Your task to perform on an android device: Add jbl charge 4 to the cart on bestbuy, then select checkout. Image 0: 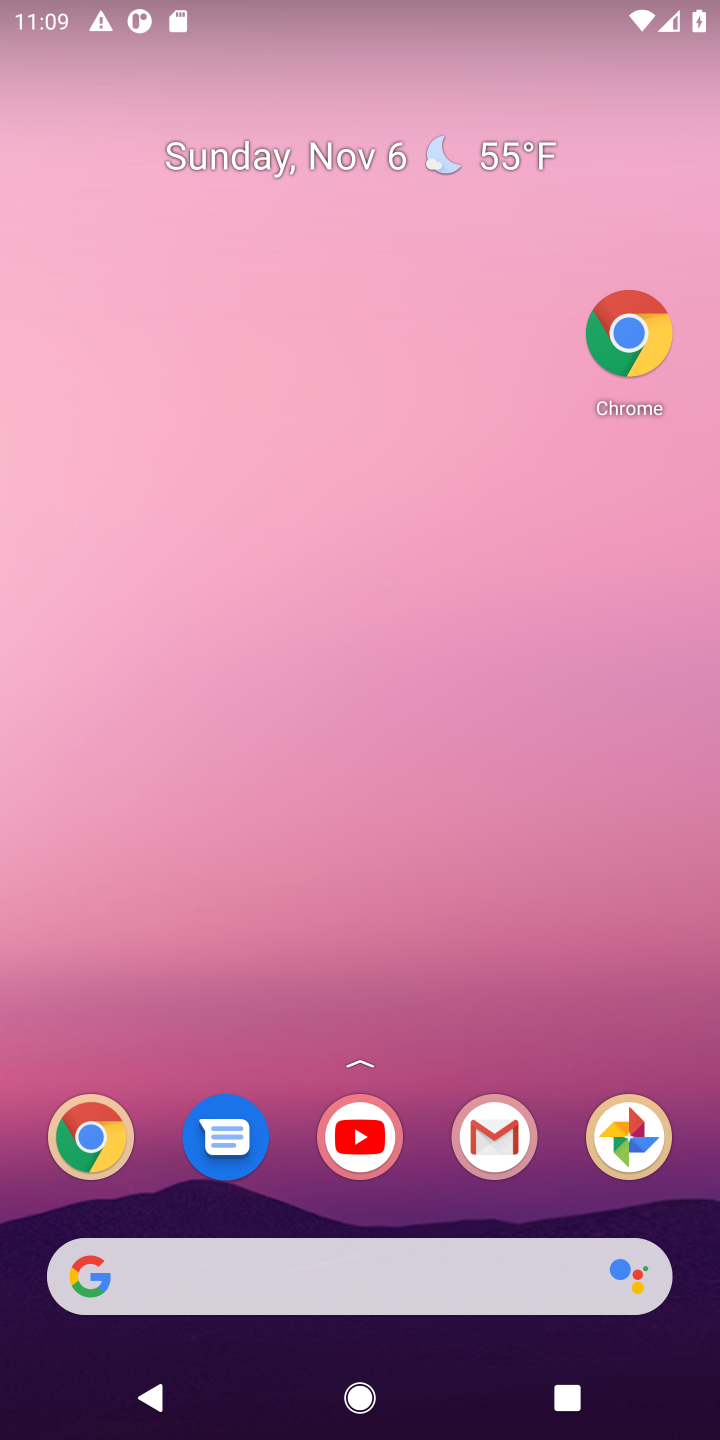
Step 0: drag from (420, 1156) to (433, 289)
Your task to perform on an android device: Add jbl charge 4 to the cart on bestbuy, then select checkout. Image 1: 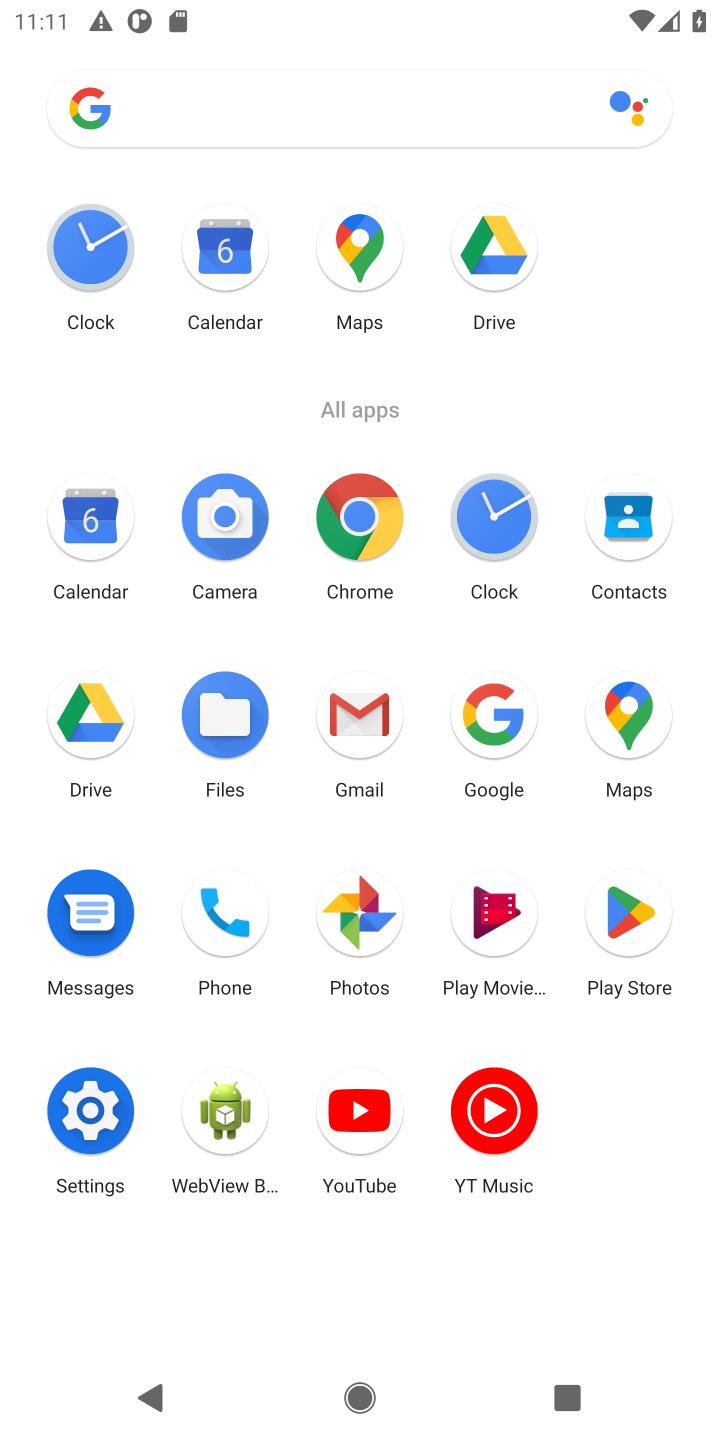
Step 1: click (363, 515)
Your task to perform on an android device: Add jbl charge 4 to the cart on bestbuy, then select checkout. Image 2: 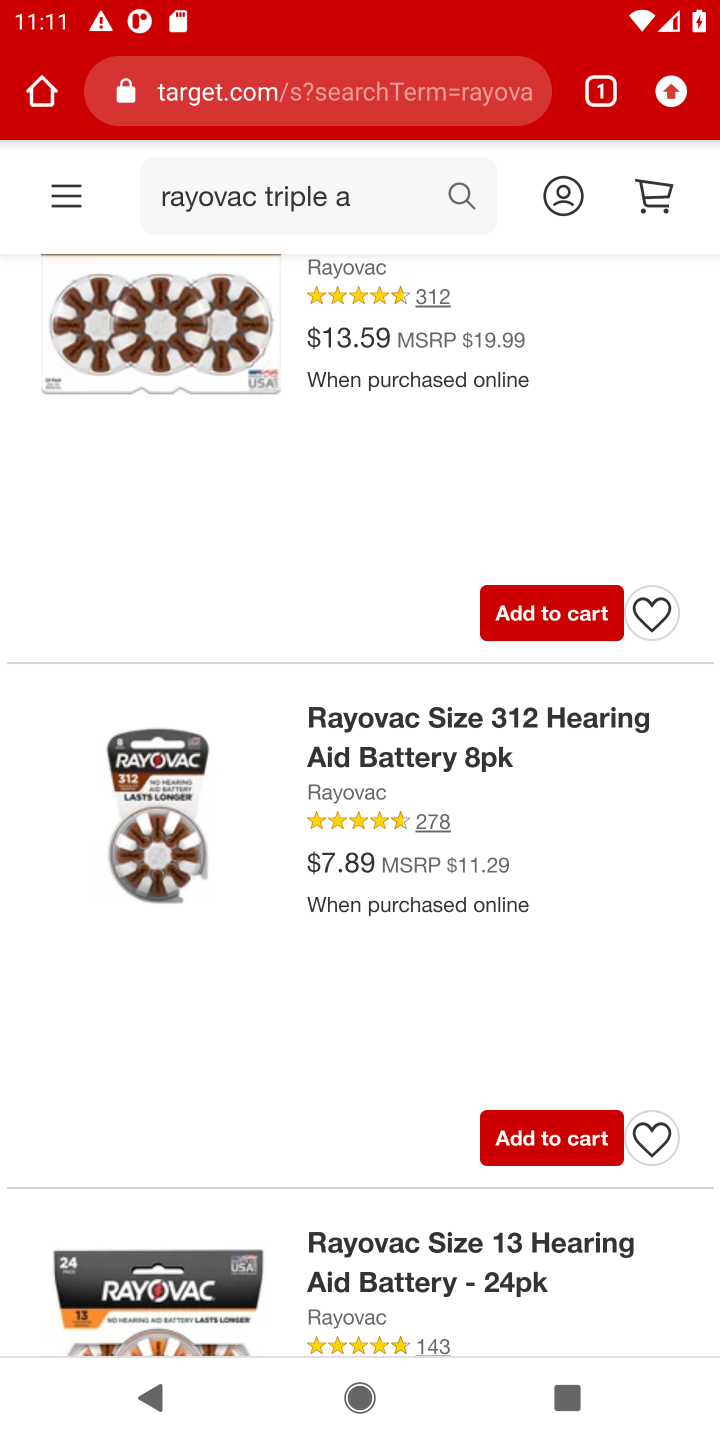
Step 2: click (408, 447)
Your task to perform on an android device: Add jbl charge 4 to the cart on bestbuy, then select checkout. Image 3: 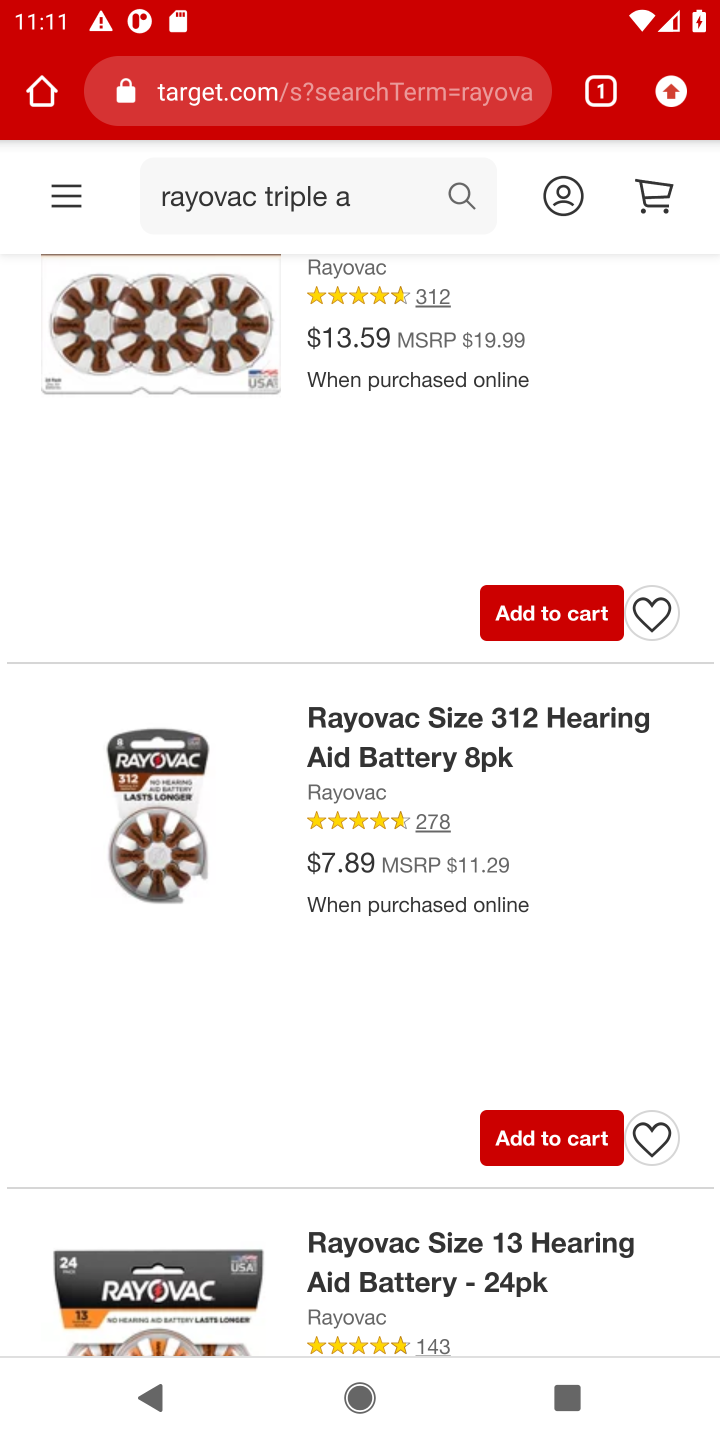
Step 3: click (516, 116)
Your task to perform on an android device: Add jbl charge 4 to the cart on bestbuy, then select checkout. Image 4: 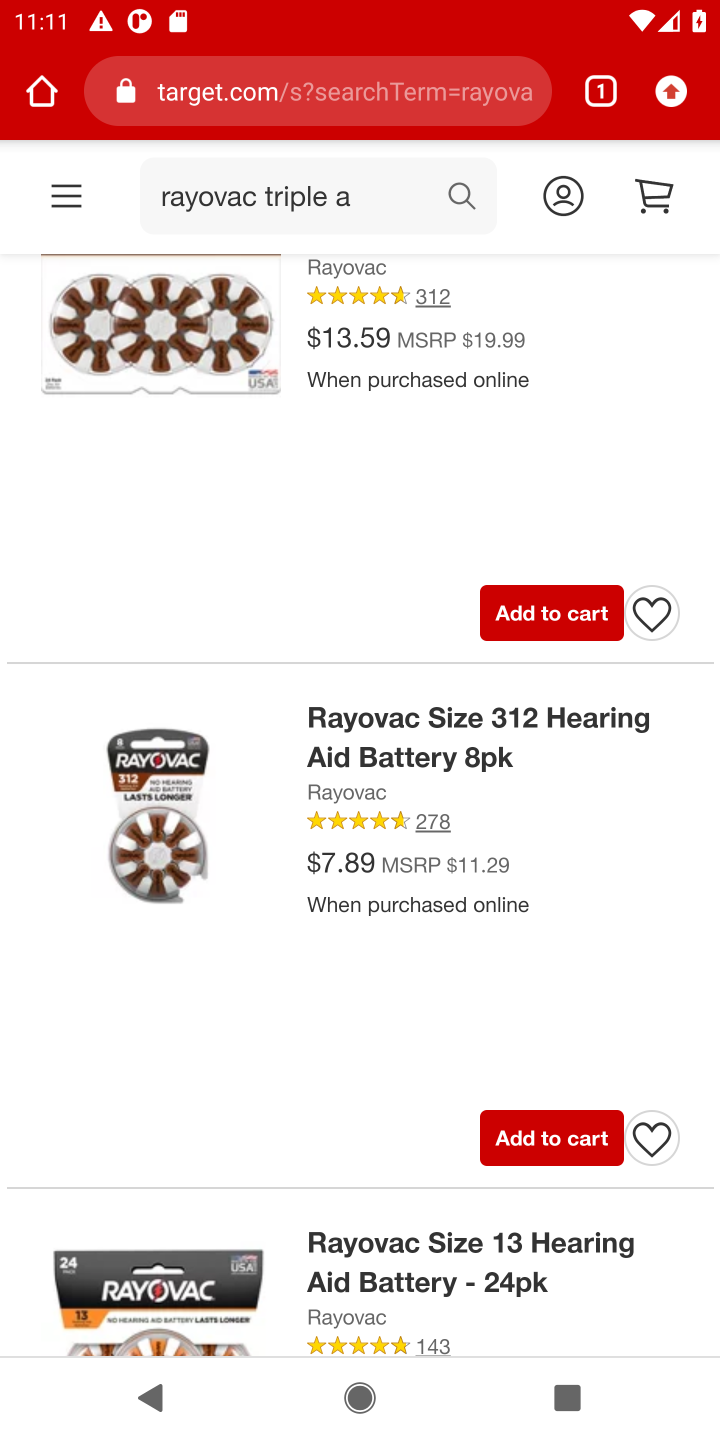
Step 4: click (420, 87)
Your task to perform on an android device: Add jbl charge 4 to the cart on bestbuy, then select checkout. Image 5: 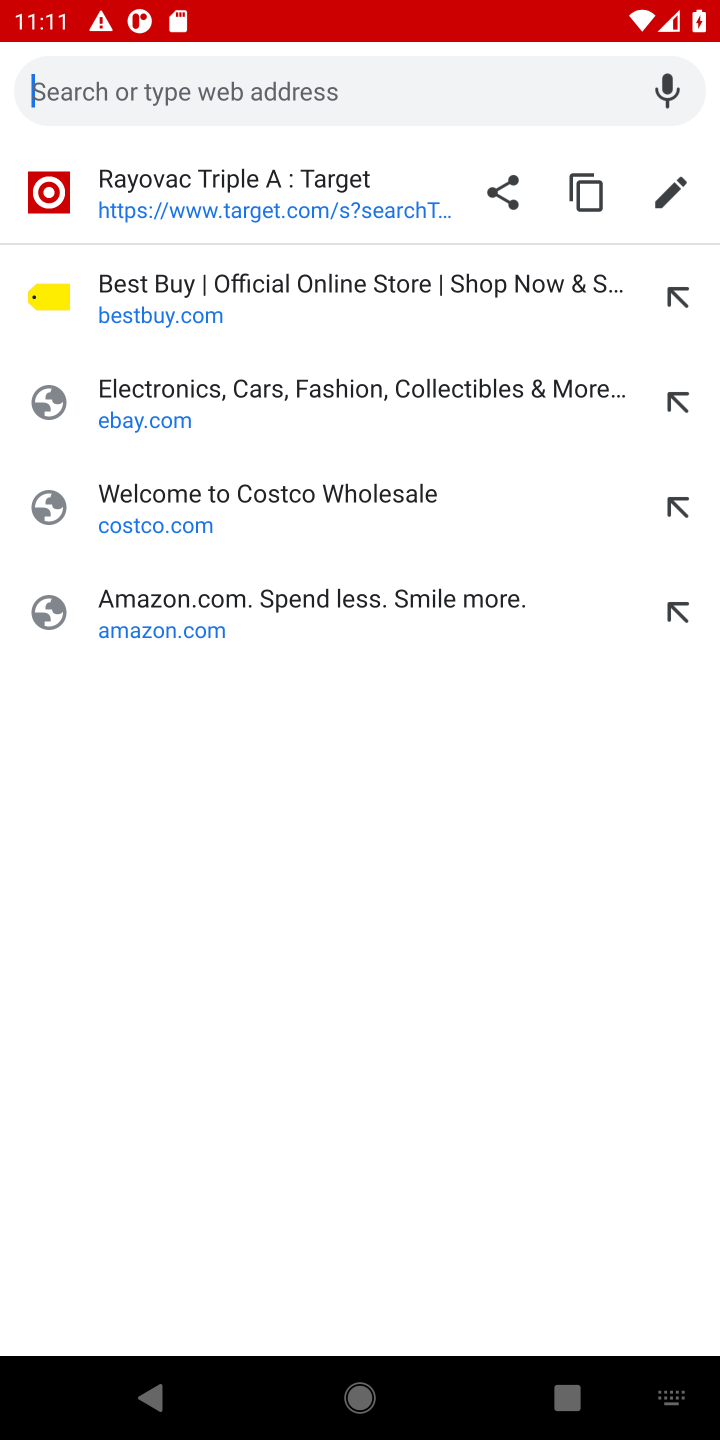
Step 5: type "bestbuy.com"
Your task to perform on an android device: Add jbl charge 4 to the cart on bestbuy, then select checkout. Image 6: 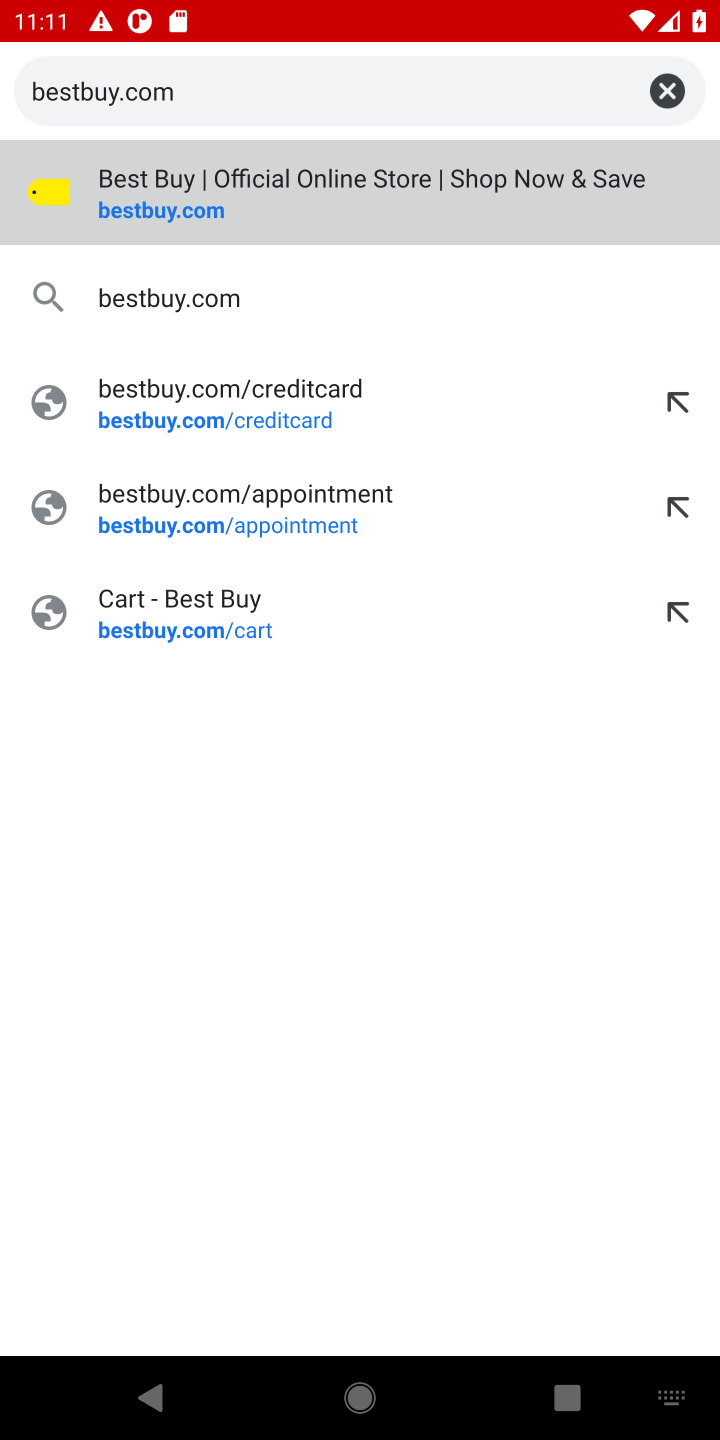
Step 6: press enter
Your task to perform on an android device: Add jbl charge 4 to the cart on bestbuy, then select checkout. Image 7: 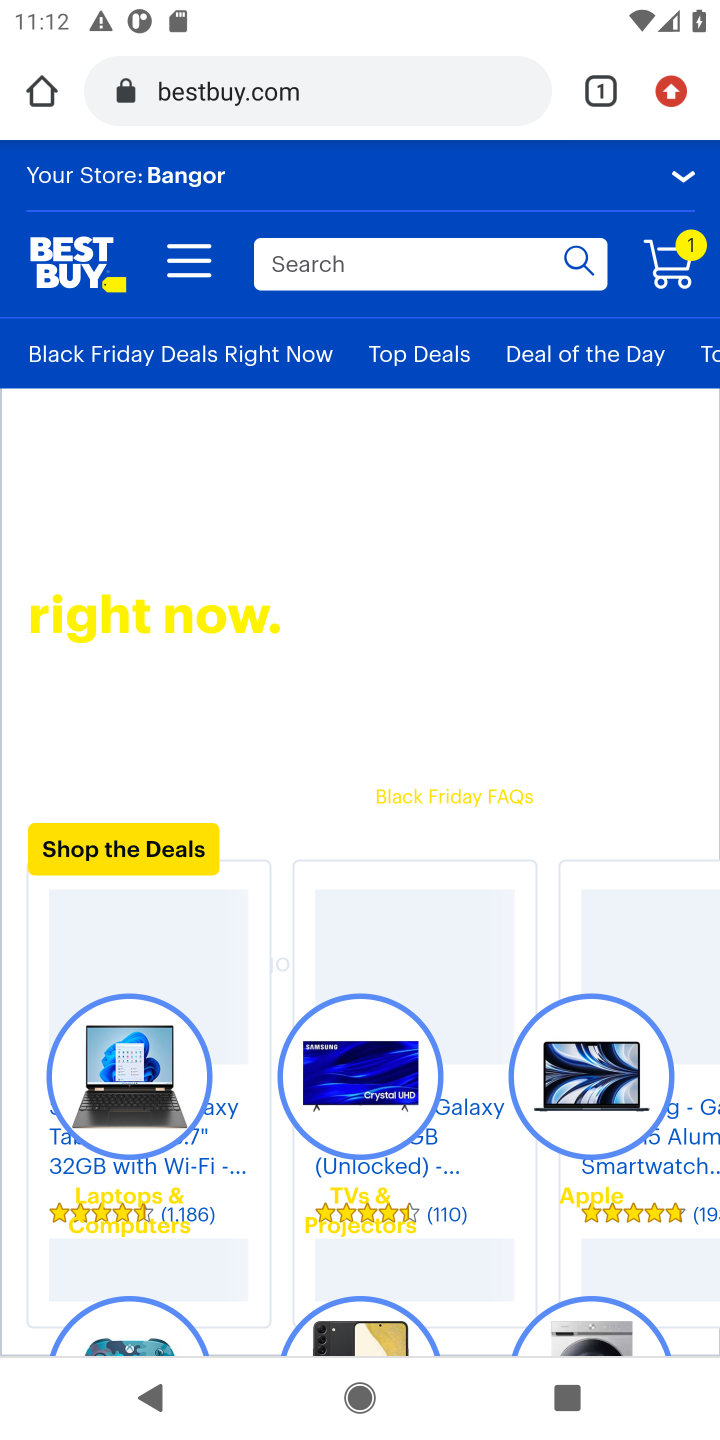
Step 7: click (480, 264)
Your task to perform on an android device: Add jbl charge 4 to the cart on bestbuy, then select checkout. Image 8: 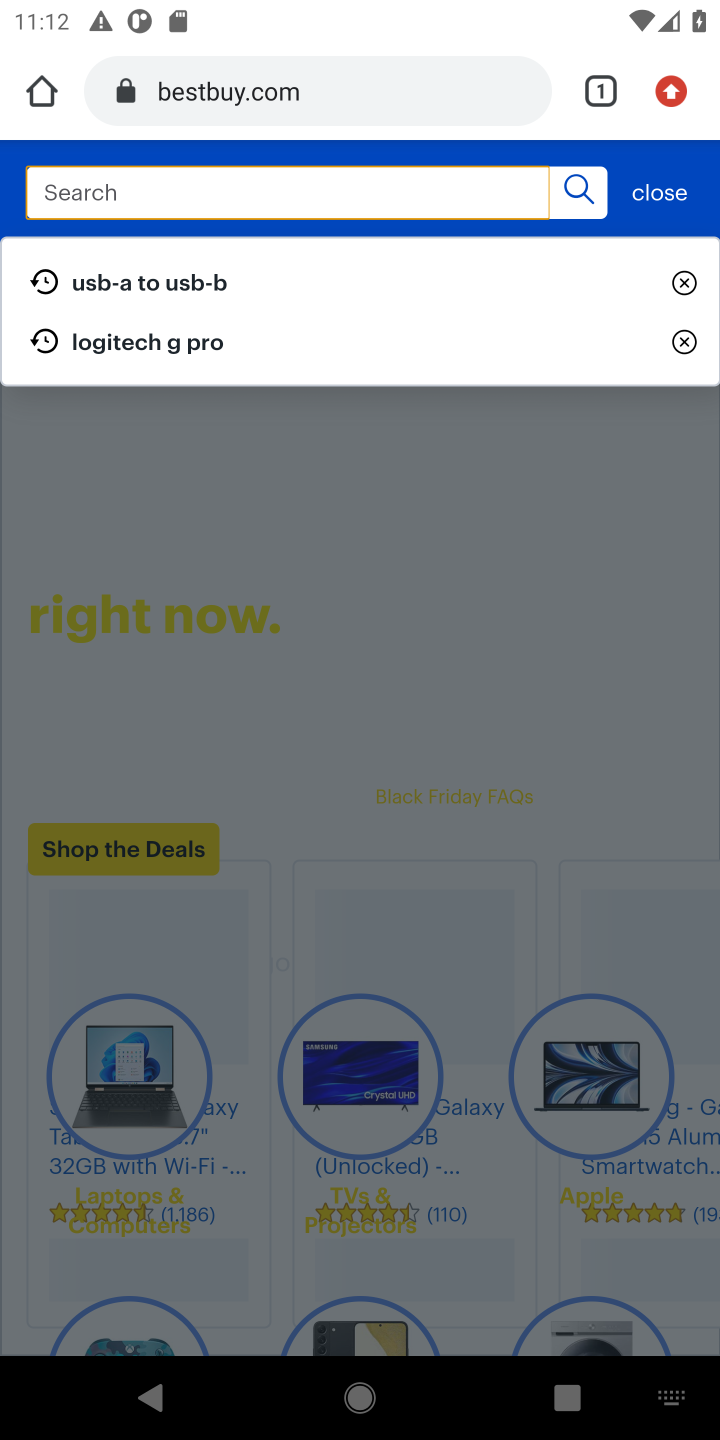
Step 8: type "jbl charge 4"
Your task to perform on an android device: Add jbl charge 4 to the cart on bestbuy, then select checkout. Image 9: 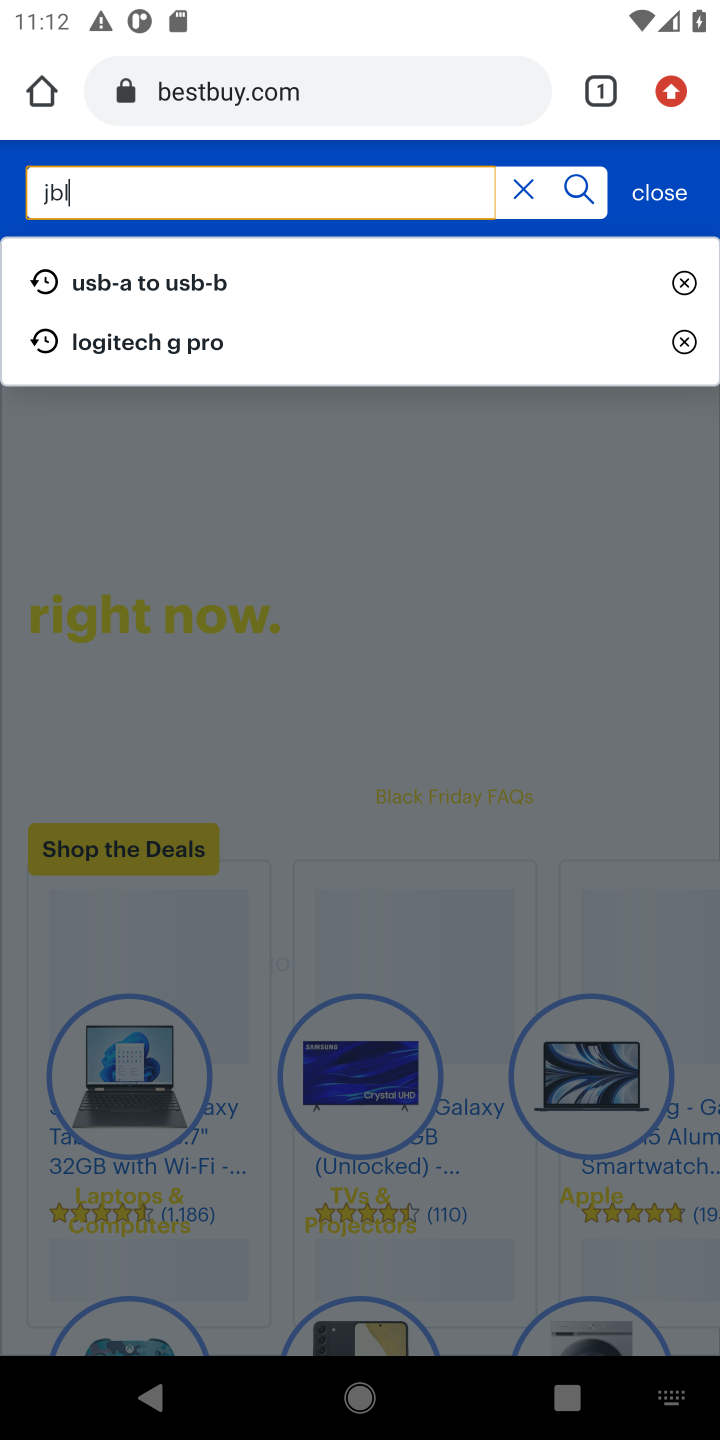
Step 9: press enter
Your task to perform on an android device: Add jbl charge 4 to the cart on bestbuy, then select checkout. Image 10: 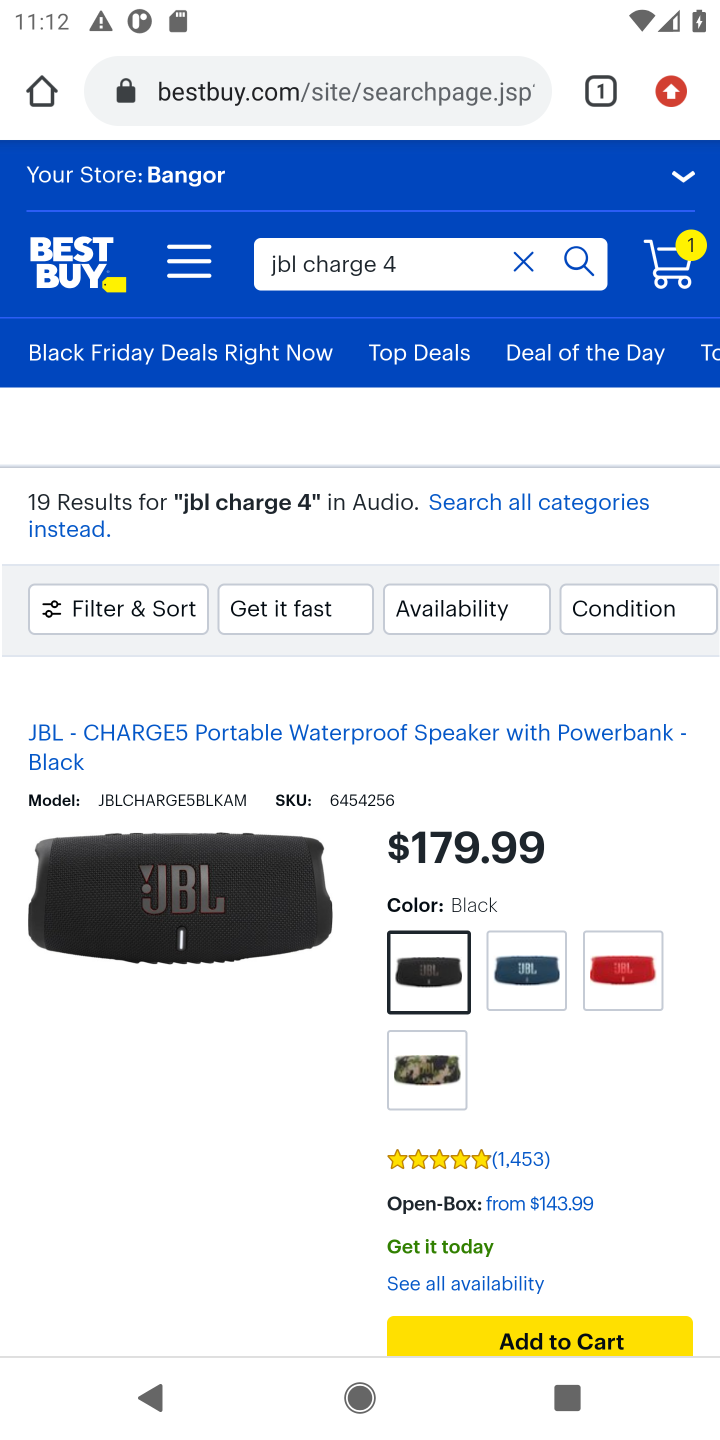
Step 10: drag from (541, 1000) to (529, 609)
Your task to perform on an android device: Add jbl charge 4 to the cart on bestbuy, then select checkout. Image 11: 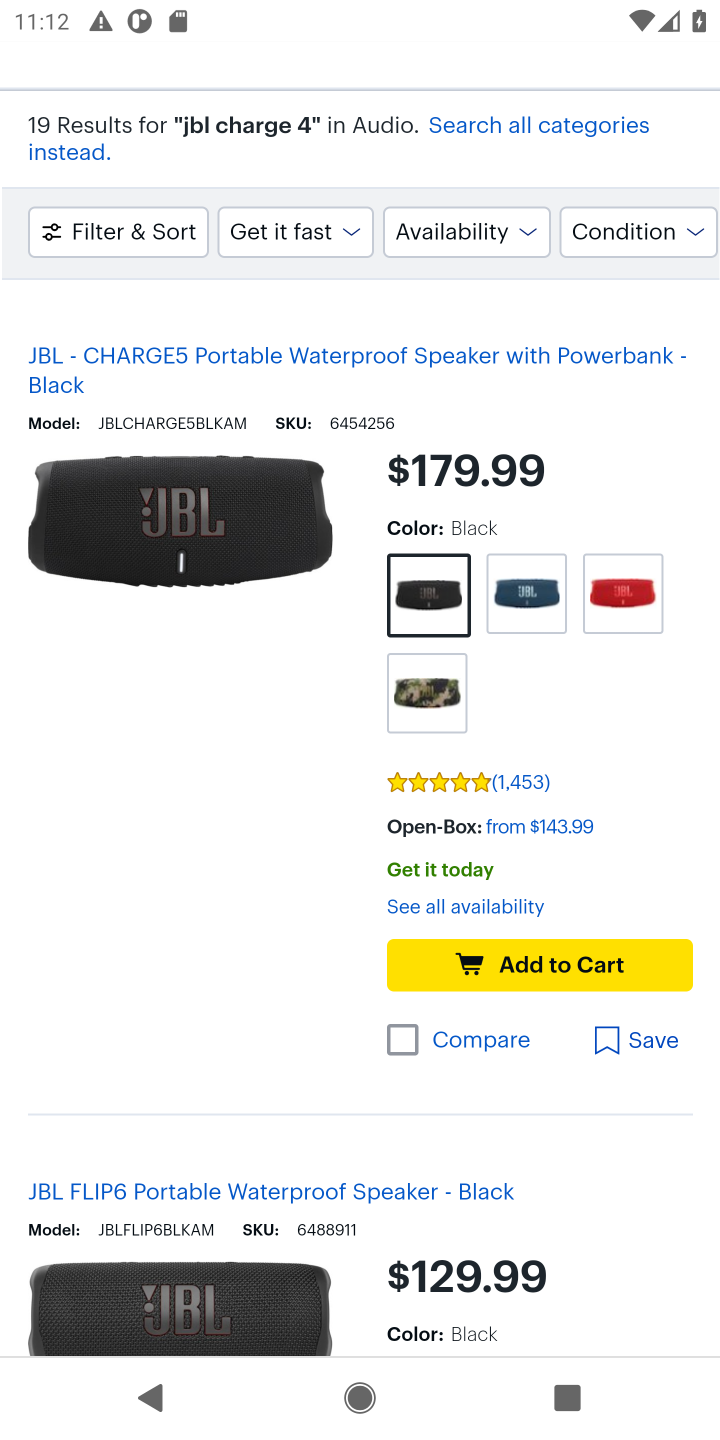
Step 11: click (240, 316)
Your task to perform on an android device: Add jbl charge 4 to the cart on bestbuy, then select checkout. Image 12: 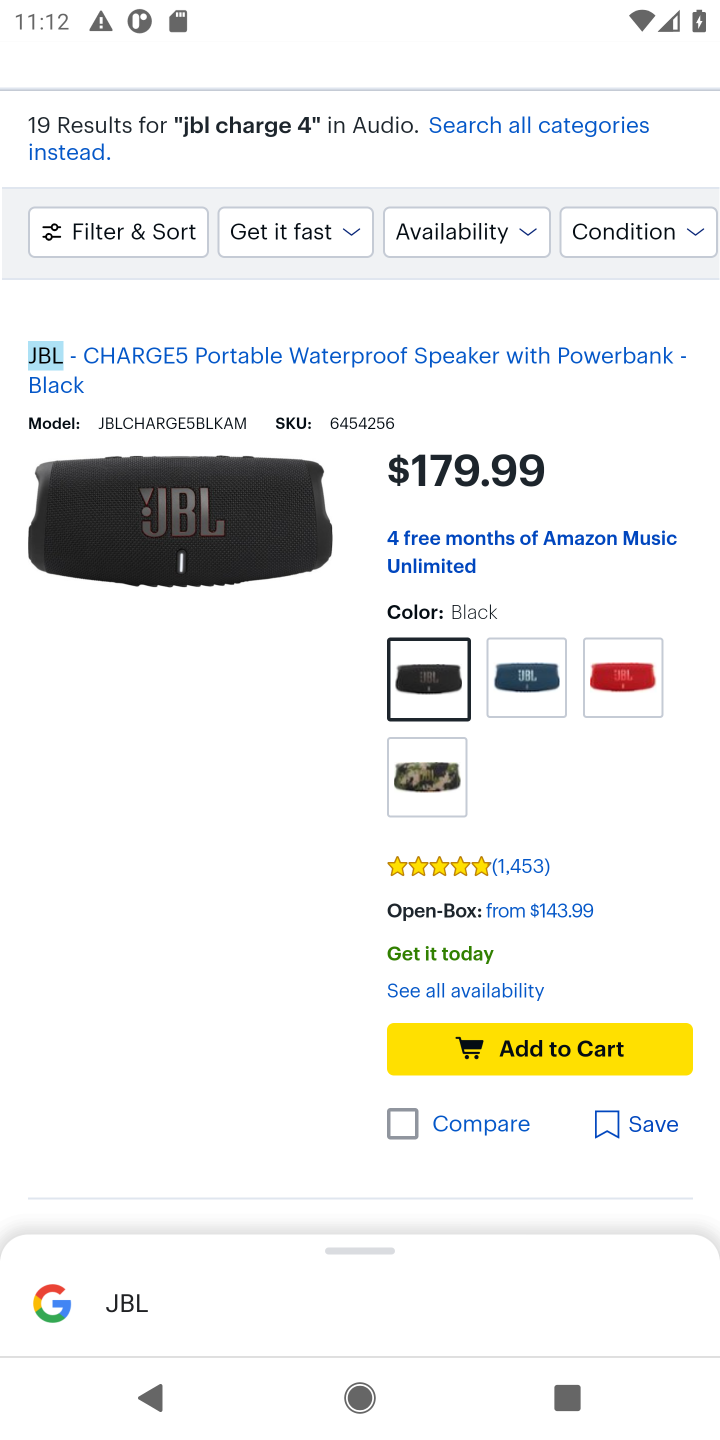
Step 12: click (283, 337)
Your task to perform on an android device: Add jbl charge 4 to the cart on bestbuy, then select checkout. Image 13: 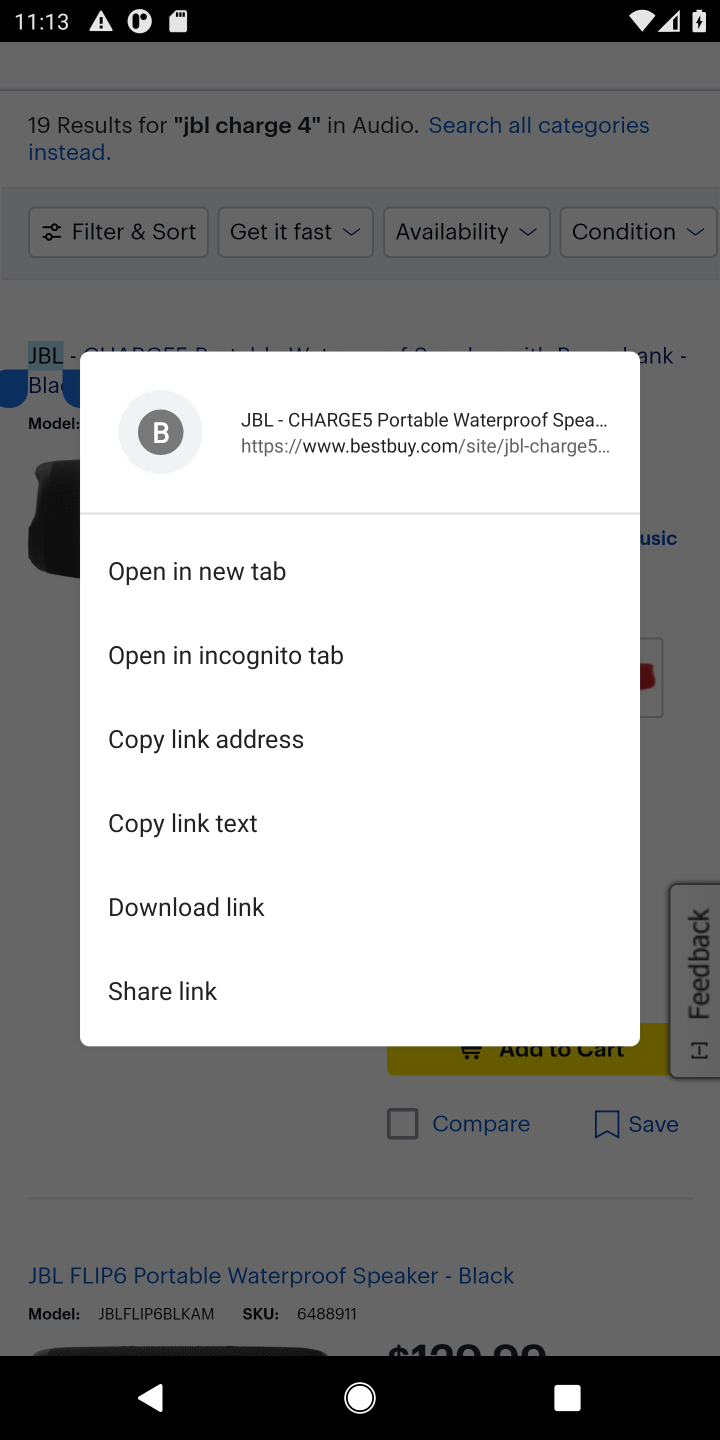
Step 13: click (320, 253)
Your task to perform on an android device: Add jbl charge 4 to the cart on bestbuy, then select checkout. Image 14: 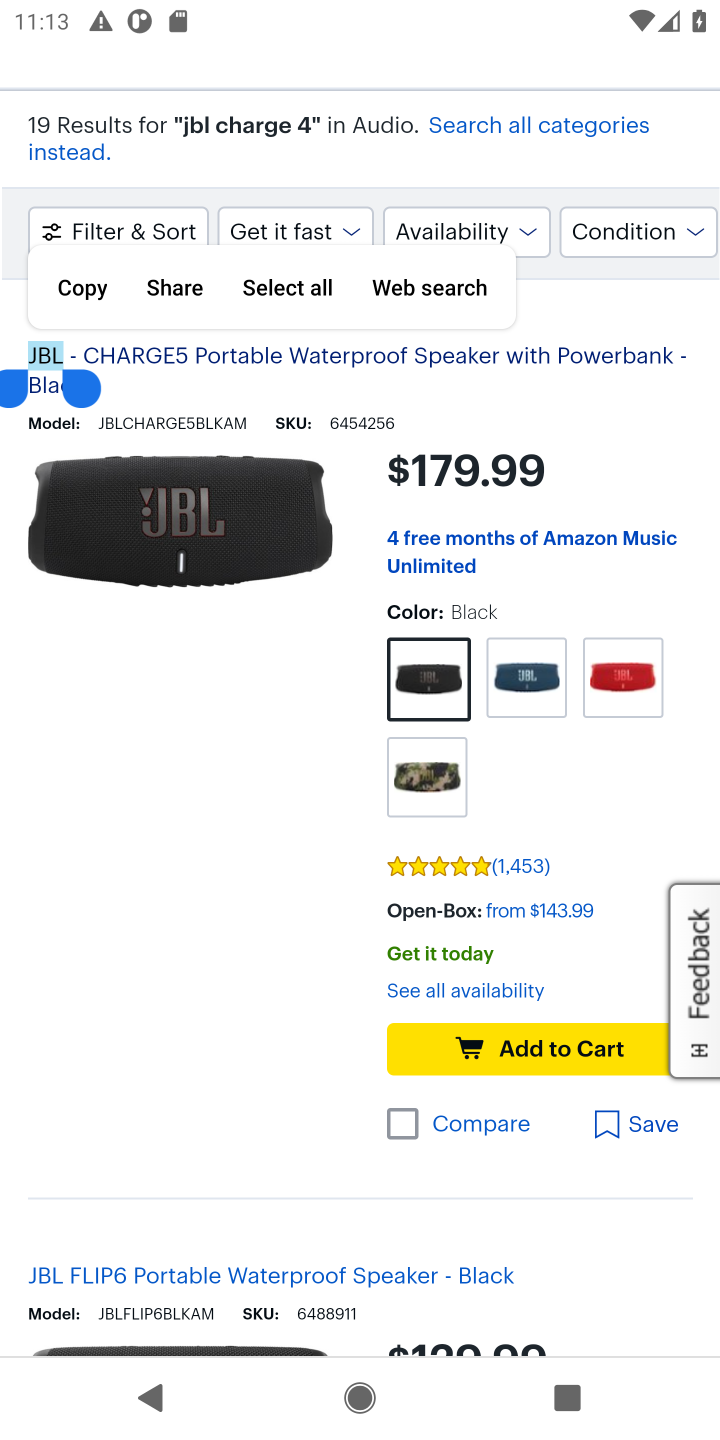
Step 14: task complete